Your task to perform on an android device: find snoozed emails in the gmail app Image 0: 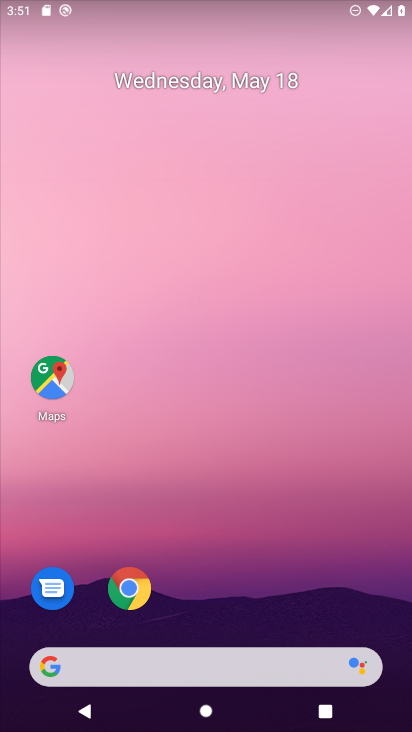
Step 0: drag from (231, 603) to (299, 49)
Your task to perform on an android device: find snoozed emails in the gmail app Image 1: 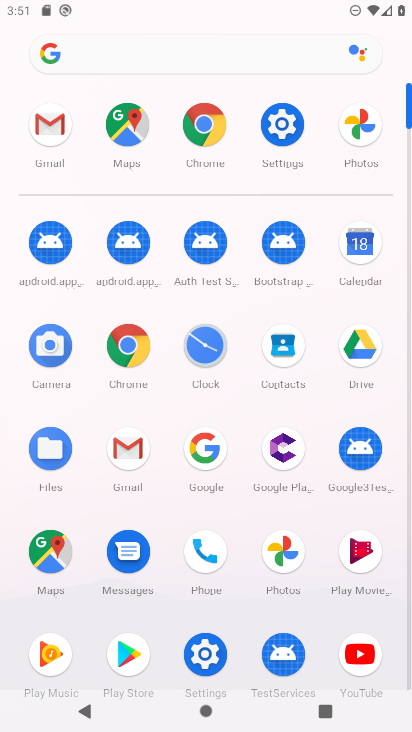
Step 1: click (44, 151)
Your task to perform on an android device: find snoozed emails in the gmail app Image 2: 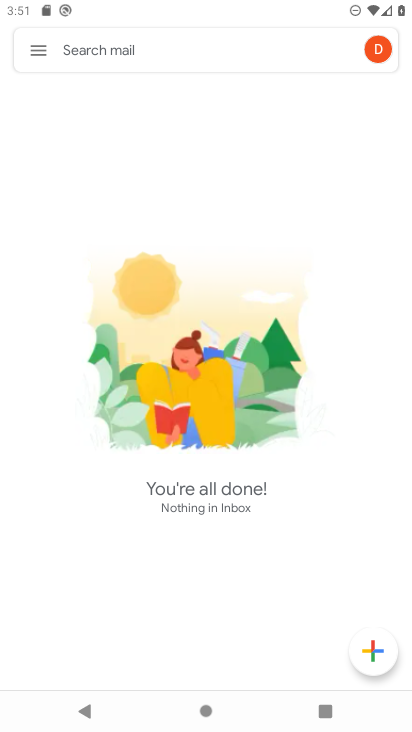
Step 2: click (34, 58)
Your task to perform on an android device: find snoozed emails in the gmail app Image 3: 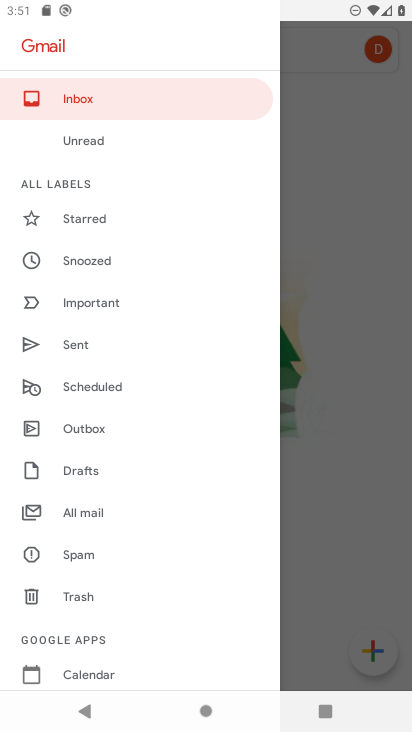
Step 3: click (93, 272)
Your task to perform on an android device: find snoozed emails in the gmail app Image 4: 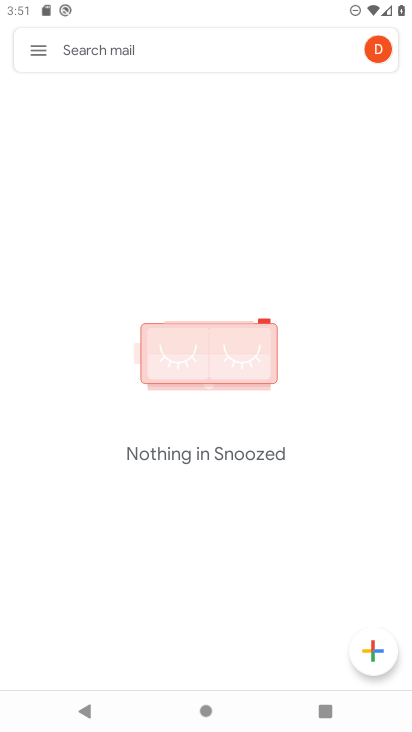
Step 4: task complete